Your task to perform on an android device: turn off airplane mode Image 0: 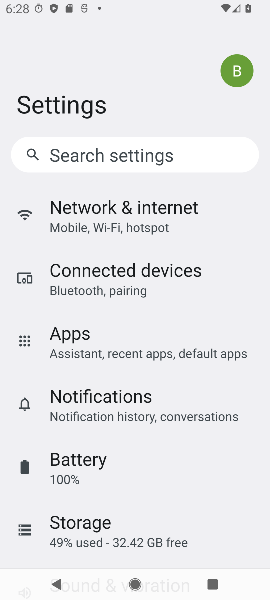
Step 0: press home button
Your task to perform on an android device: turn off airplane mode Image 1: 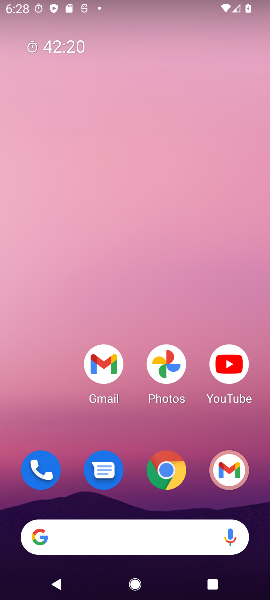
Step 1: drag from (214, 12) to (155, 543)
Your task to perform on an android device: turn off airplane mode Image 2: 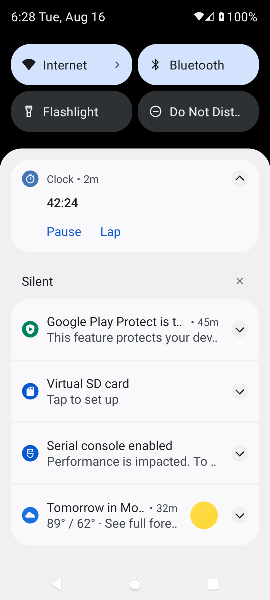
Step 2: drag from (129, 133) to (43, 596)
Your task to perform on an android device: turn off airplane mode Image 3: 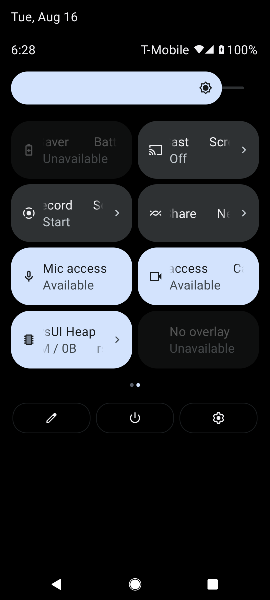
Step 3: press home button
Your task to perform on an android device: turn off airplane mode Image 4: 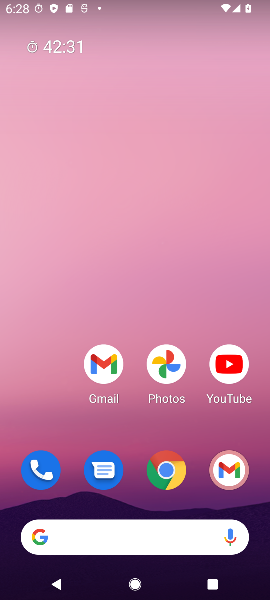
Step 4: drag from (107, 64) to (76, 489)
Your task to perform on an android device: turn off airplane mode Image 5: 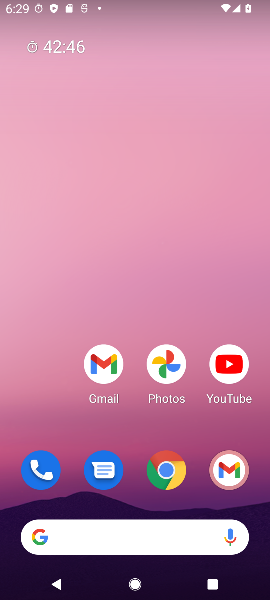
Step 5: drag from (219, 3) to (131, 598)
Your task to perform on an android device: turn off airplane mode Image 6: 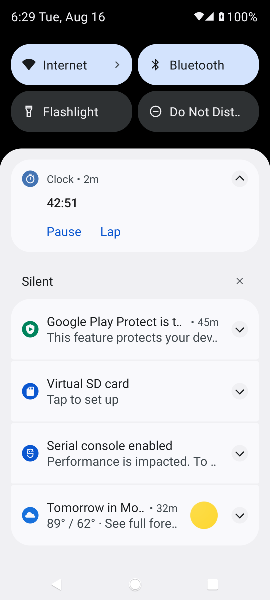
Step 6: drag from (134, 122) to (129, 599)
Your task to perform on an android device: turn off airplane mode Image 7: 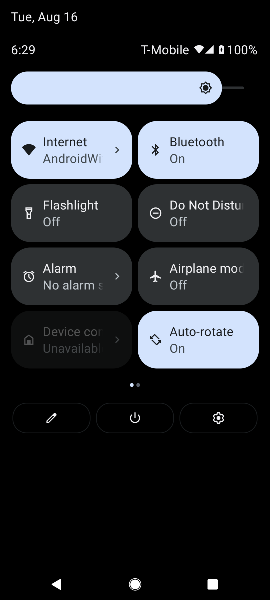
Step 7: click (207, 286)
Your task to perform on an android device: turn off airplane mode Image 8: 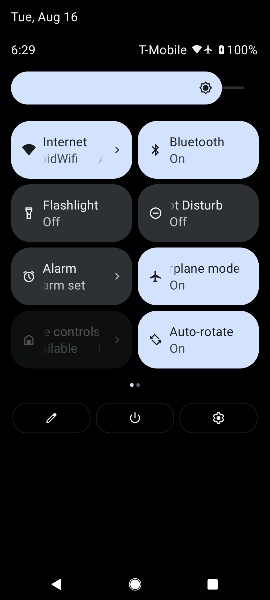
Step 8: task complete